Your task to perform on an android device: Open Maps and search for coffee Image 0: 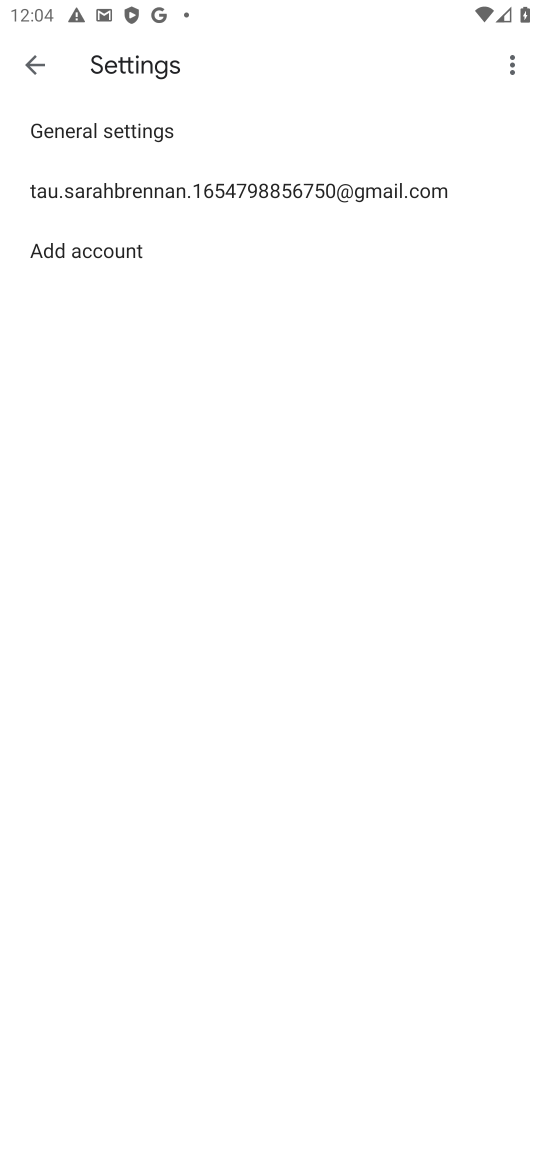
Step 0: task complete